Your task to perform on an android device: remove spam from my inbox in the gmail app Image 0: 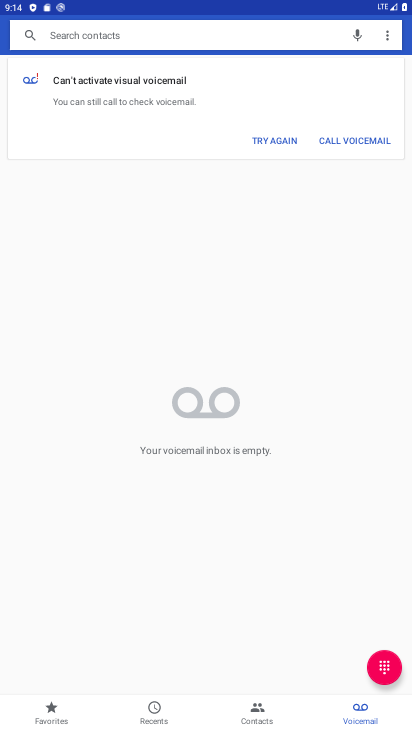
Step 0: press home button
Your task to perform on an android device: remove spam from my inbox in the gmail app Image 1: 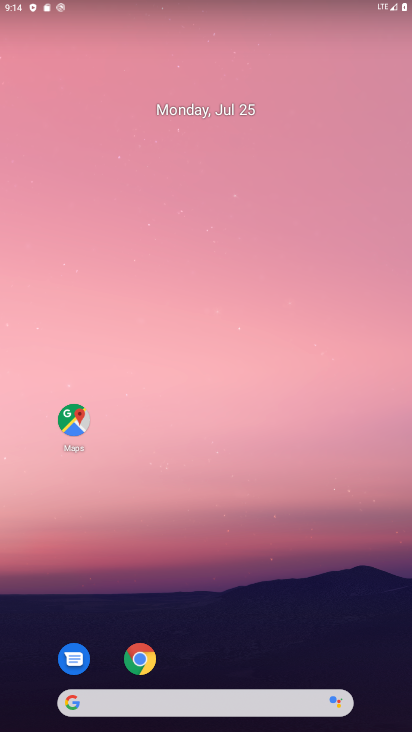
Step 1: drag from (182, 656) to (276, 9)
Your task to perform on an android device: remove spam from my inbox in the gmail app Image 2: 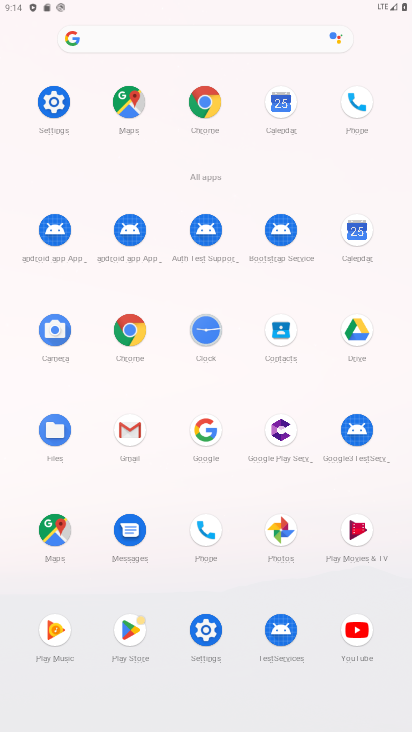
Step 2: click (129, 436)
Your task to perform on an android device: remove spam from my inbox in the gmail app Image 3: 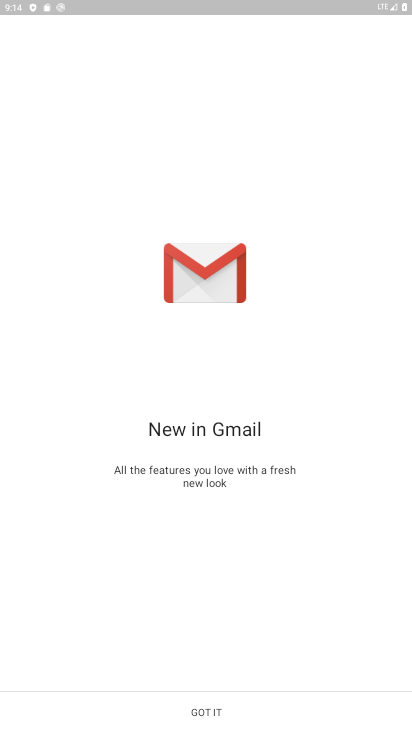
Step 3: click (228, 708)
Your task to perform on an android device: remove spam from my inbox in the gmail app Image 4: 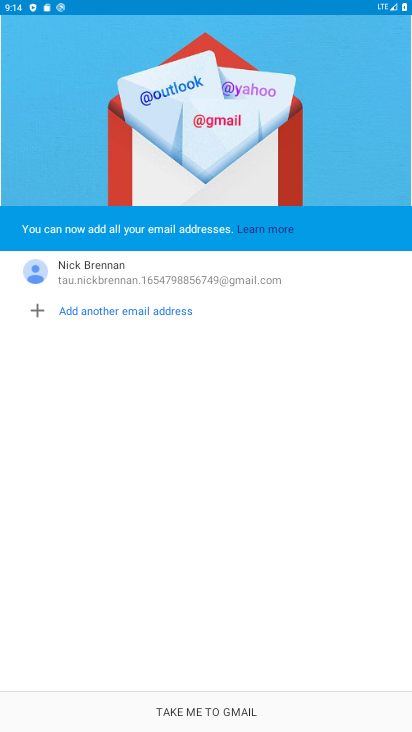
Step 4: click (228, 708)
Your task to perform on an android device: remove spam from my inbox in the gmail app Image 5: 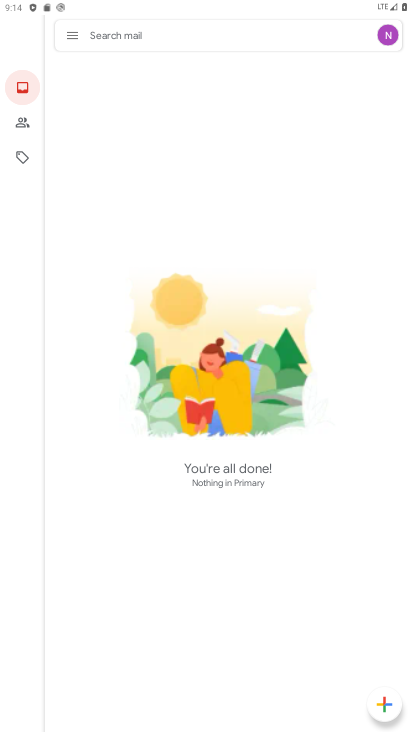
Step 5: click (60, 44)
Your task to perform on an android device: remove spam from my inbox in the gmail app Image 6: 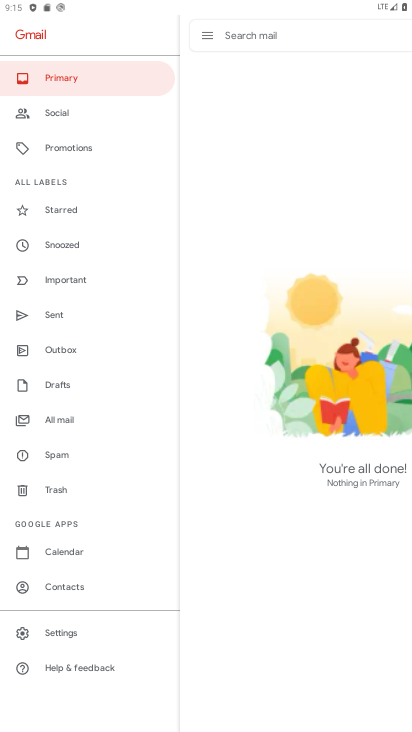
Step 6: click (59, 453)
Your task to perform on an android device: remove spam from my inbox in the gmail app Image 7: 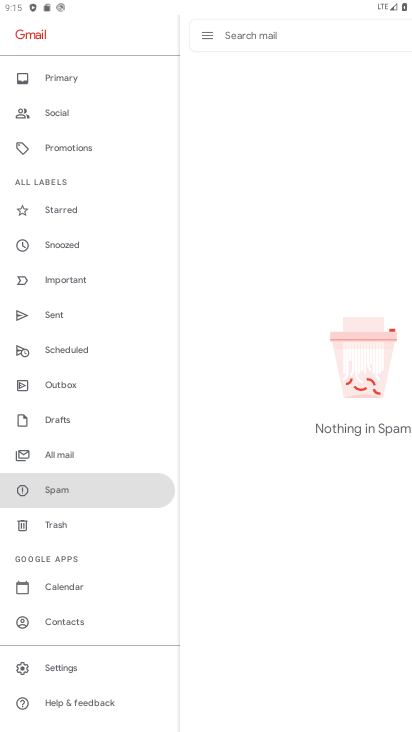
Step 7: task complete